Your task to perform on an android device: turn on location history Image 0: 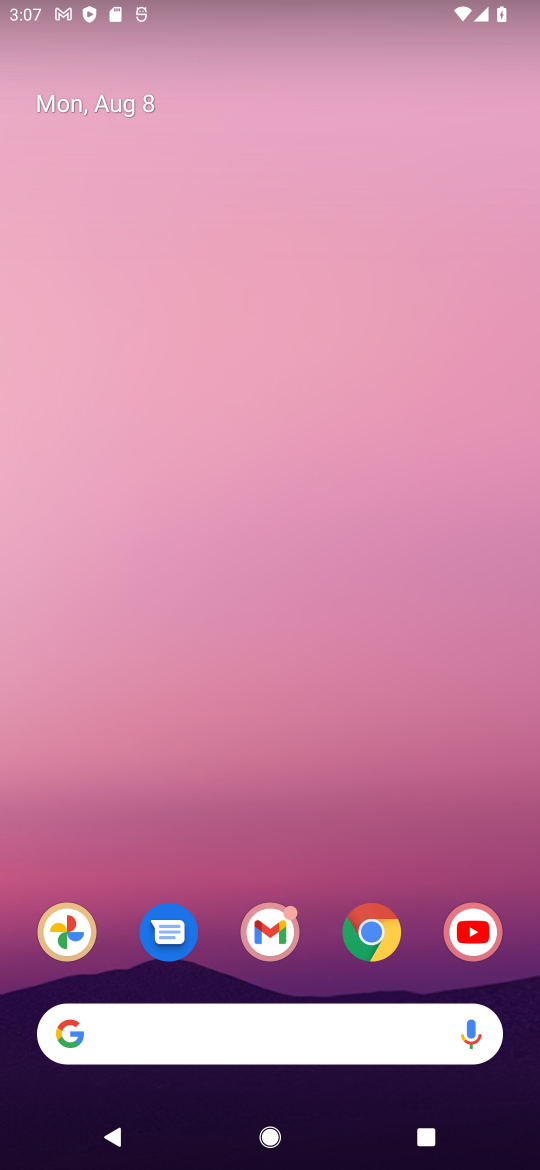
Step 0: drag from (205, 899) to (346, 350)
Your task to perform on an android device: turn on location history Image 1: 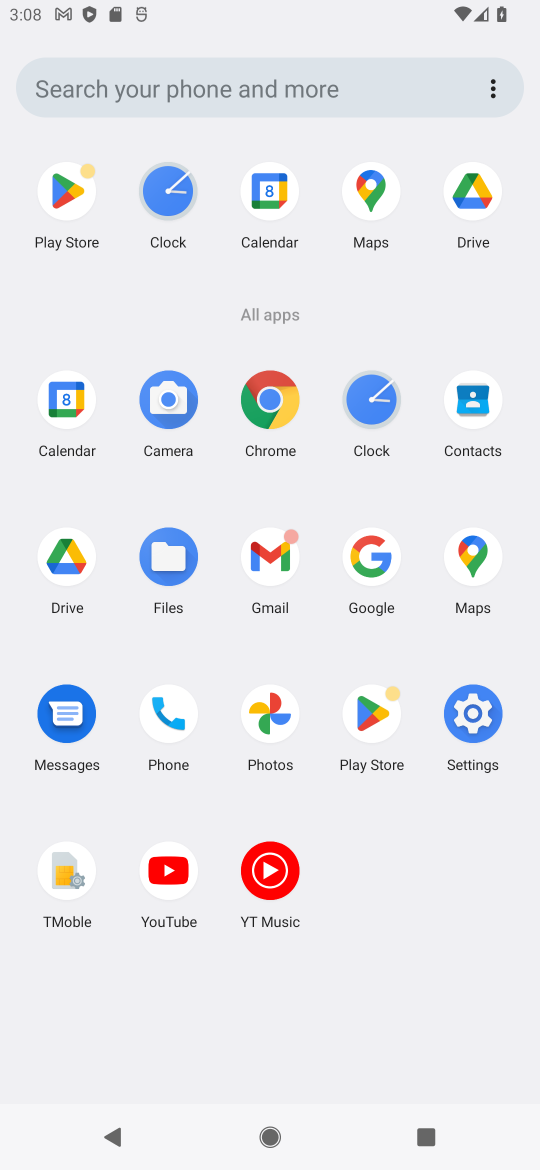
Step 1: click (372, 217)
Your task to perform on an android device: turn on location history Image 2: 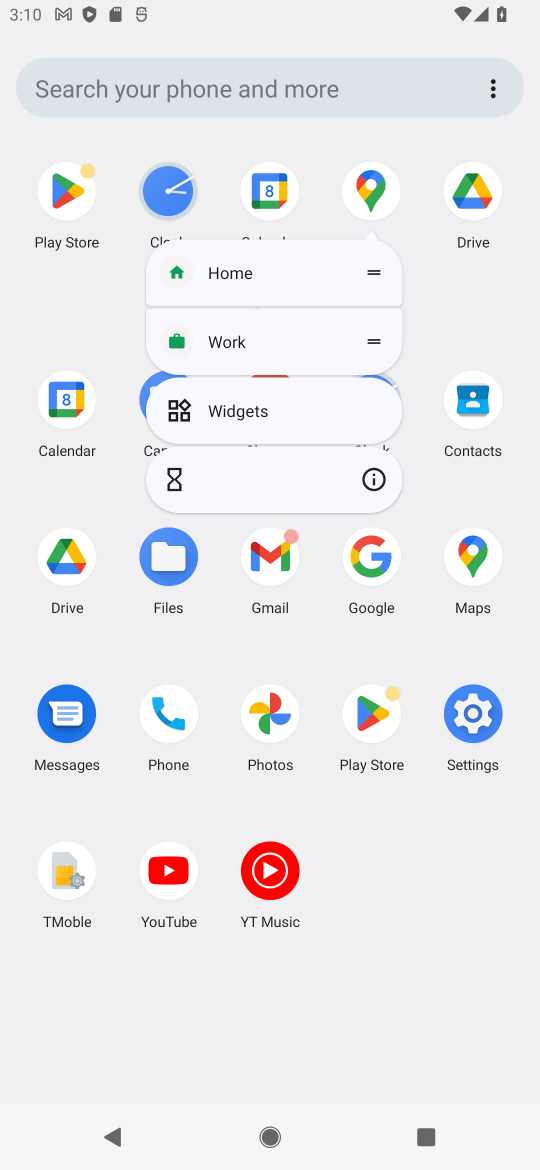
Step 2: click (472, 568)
Your task to perform on an android device: turn on location history Image 3: 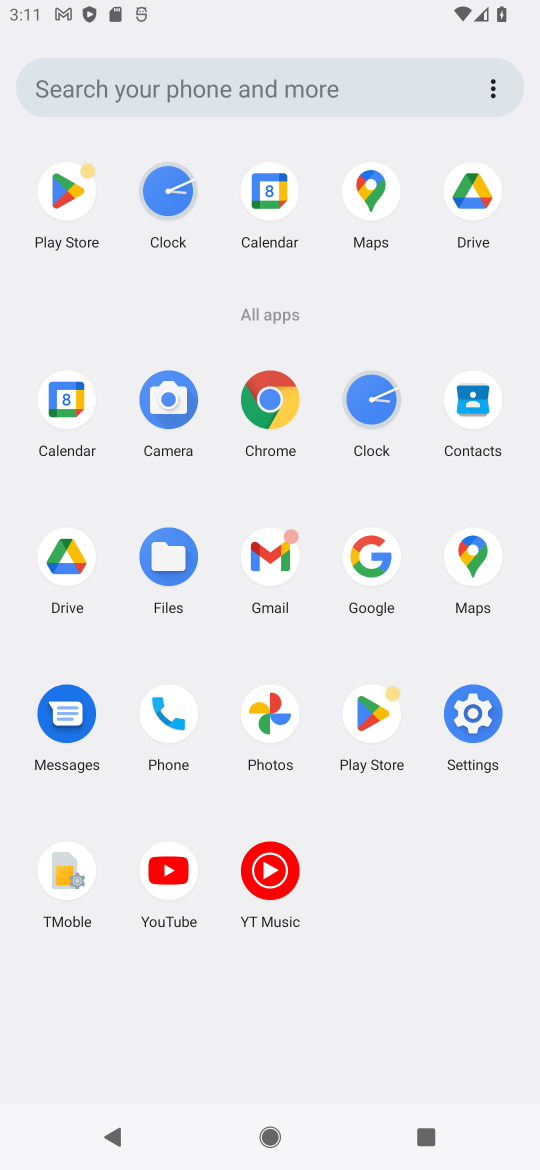
Step 3: click (453, 555)
Your task to perform on an android device: turn on location history Image 4: 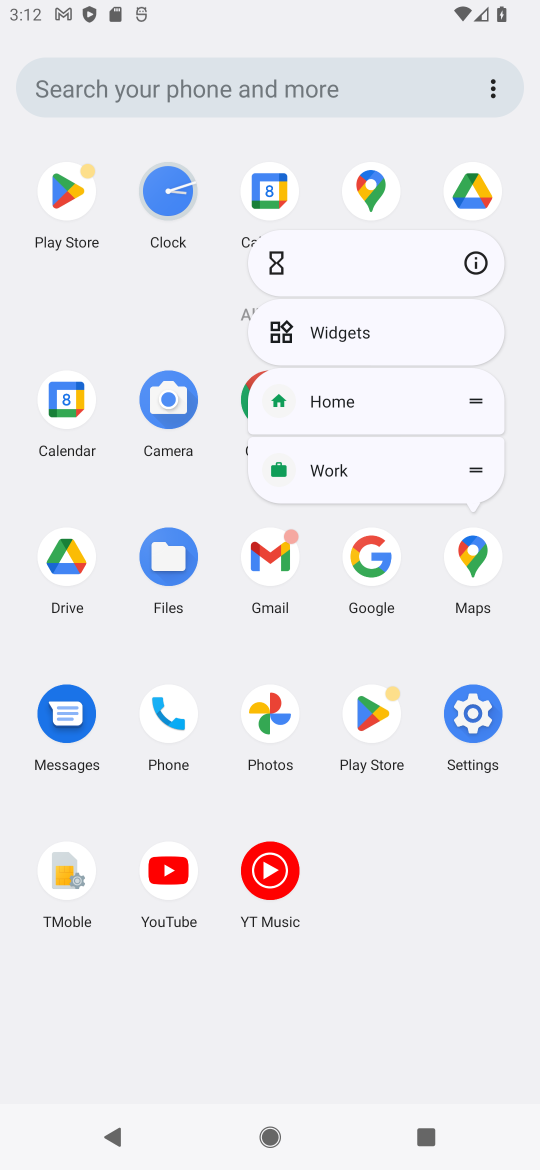
Step 4: click (476, 542)
Your task to perform on an android device: turn on location history Image 5: 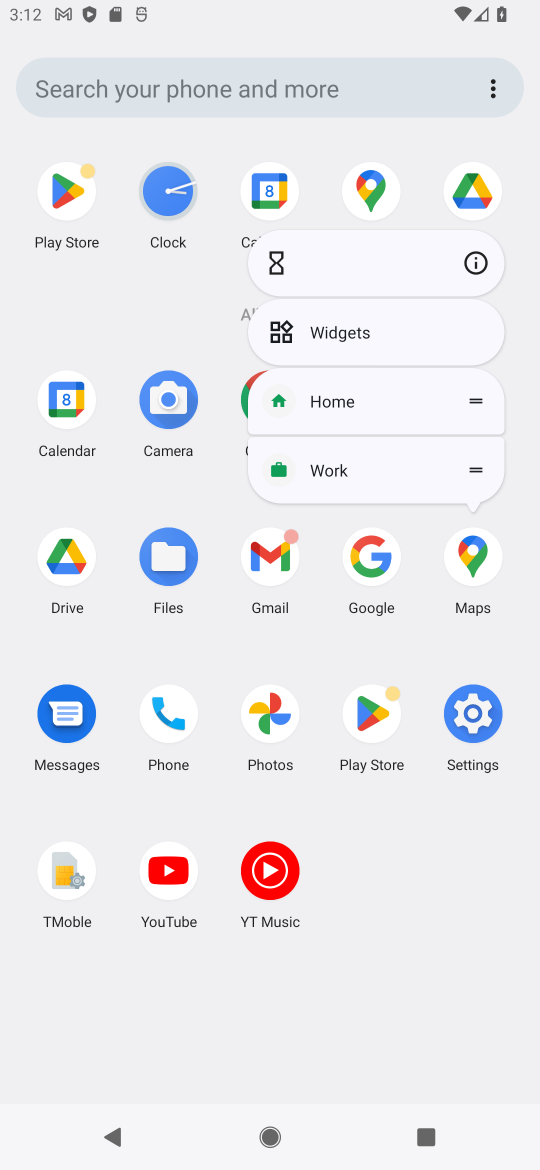
Step 5: click (474, 549)
Your task to perform on an android device: turn on location history Image 6: 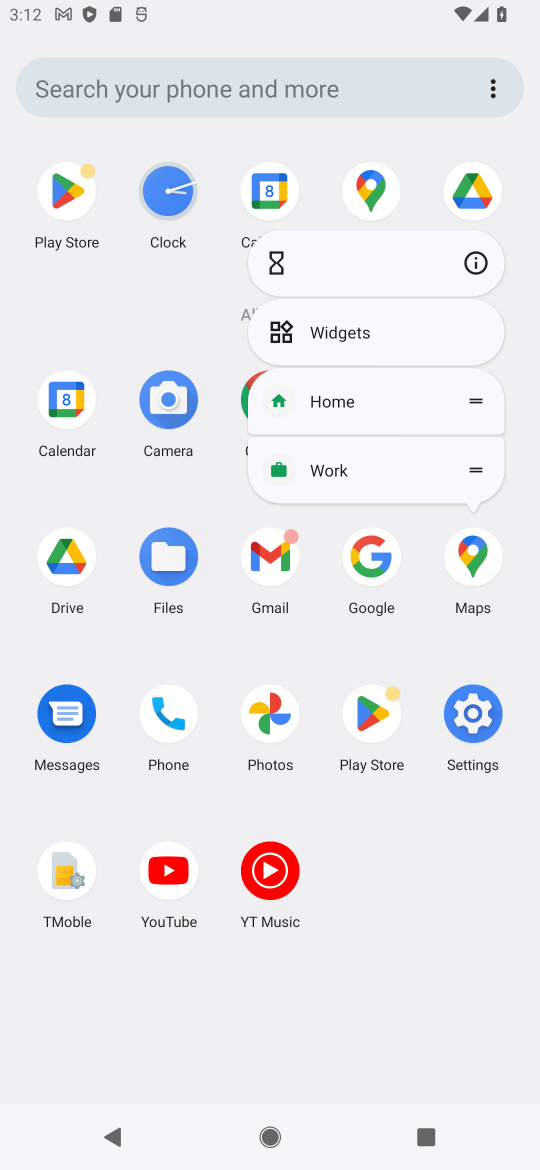
Step 6: click (474, 549)
Your task to perform on an android device: turn on location history Image 7: 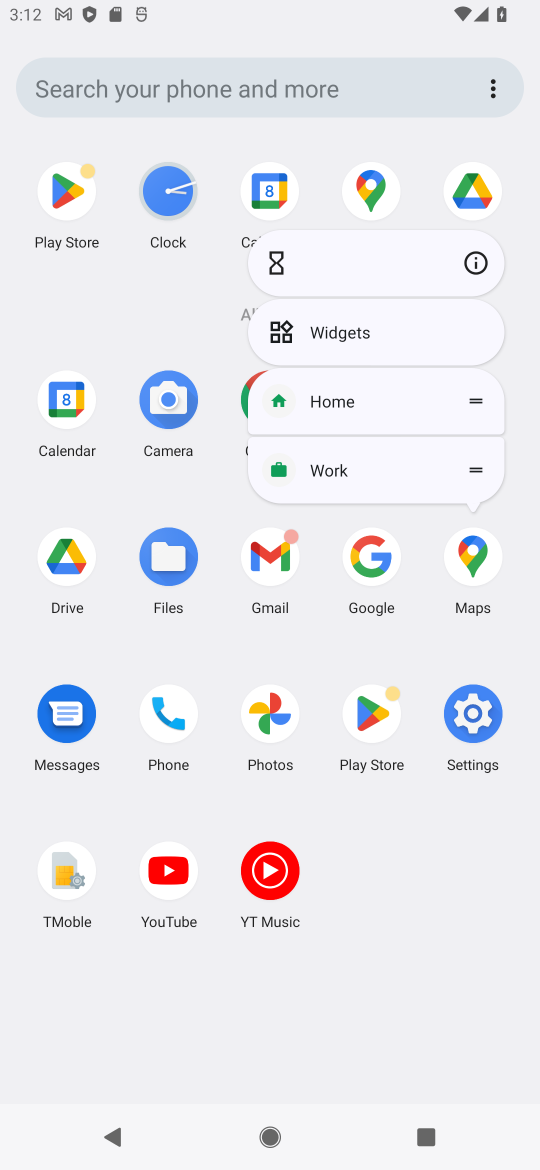
Step 7: click (474, 549)
Your task to perform on an android device: turn on location history Image 8: 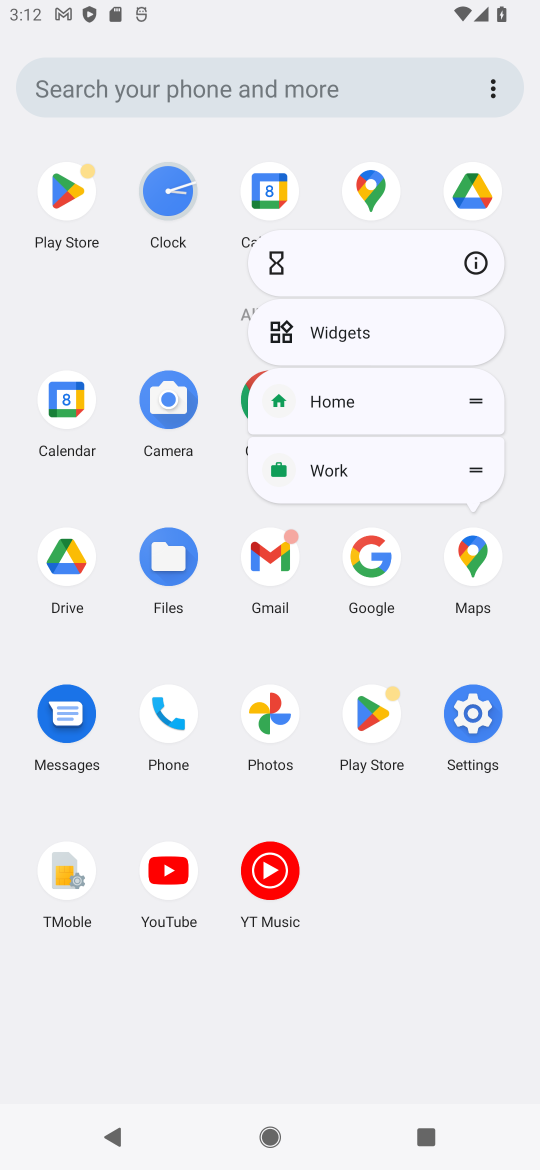
Step 8: click (474, 560)
Your task to perform on an android device: turn on location history Image 9: 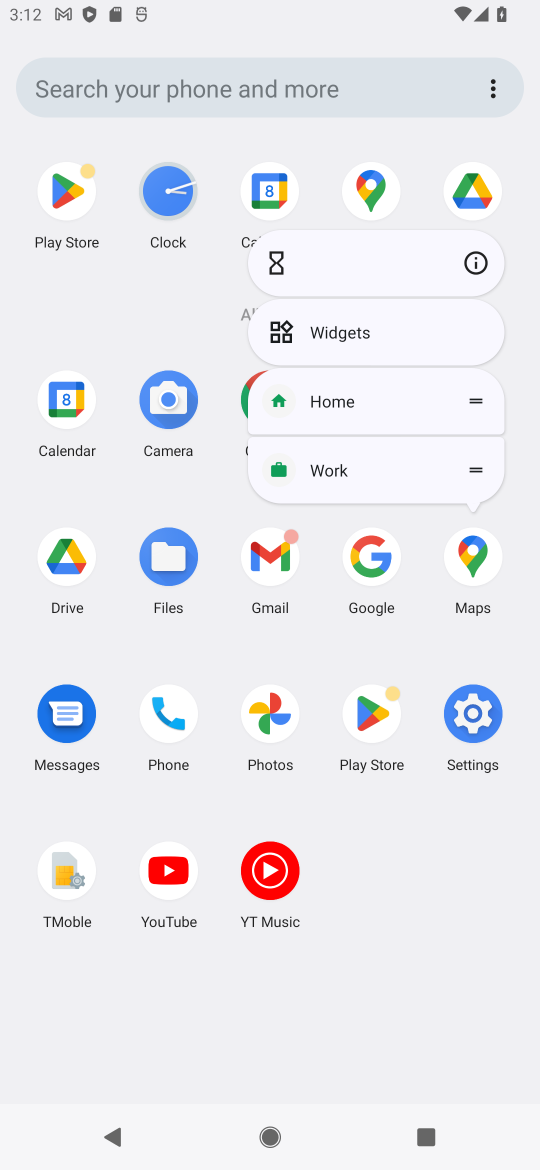
Step 9: click (474, 560)
Your task to perform on an android device: turn on location history Image 10: 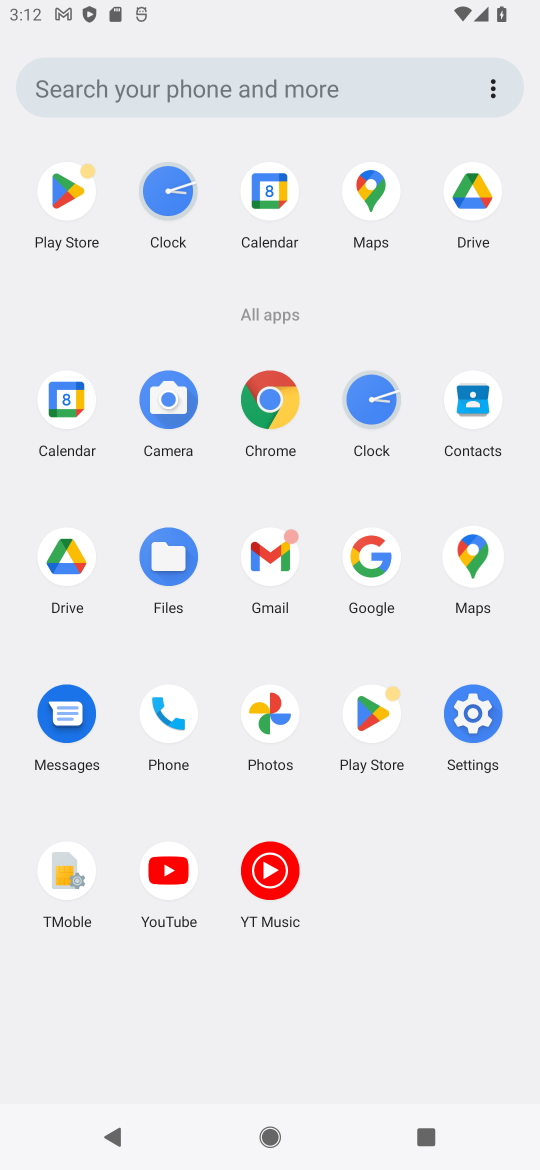
Step 10: click (474, 560)
Your task to perform on an android device: turn on location history Image 11: 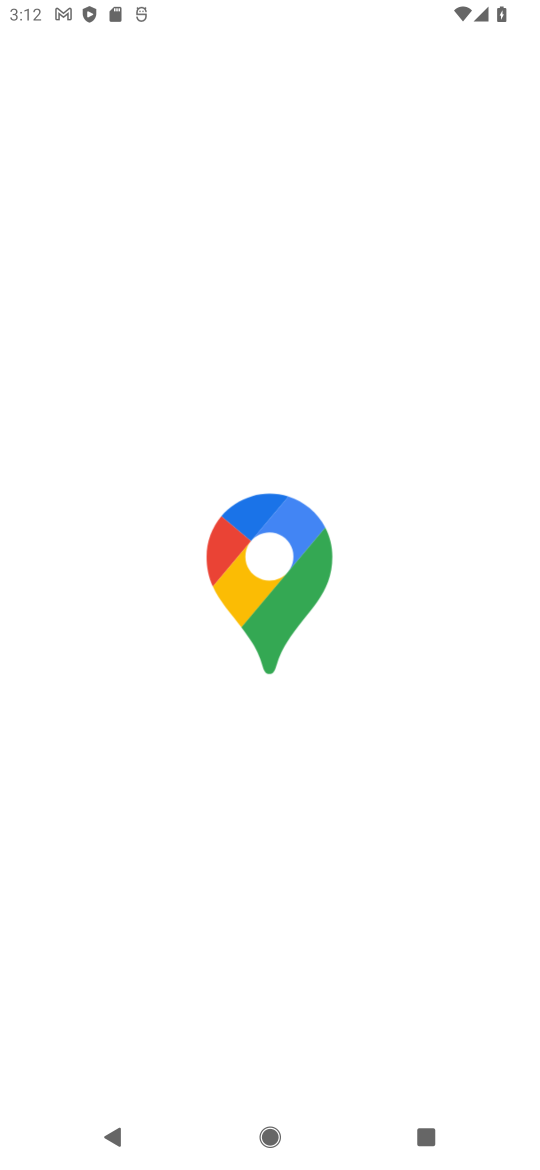
Step 11: click (474, 560)
Your task to perform on an android device: turn on location history Image 12: 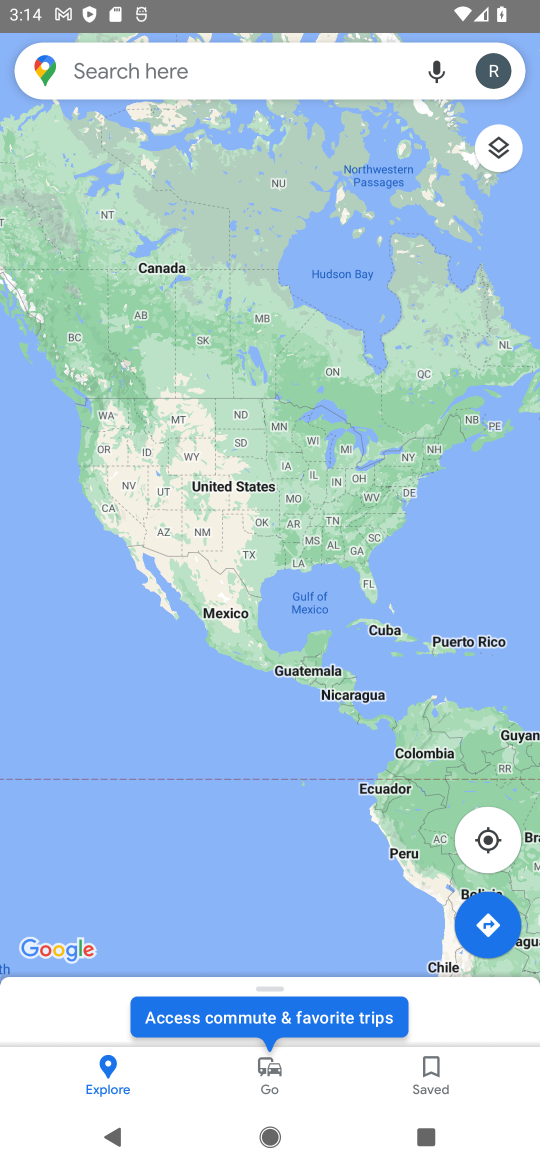
Step 12: click (46, 67)
Your task to perform on an android device: turn on location history Image 13: 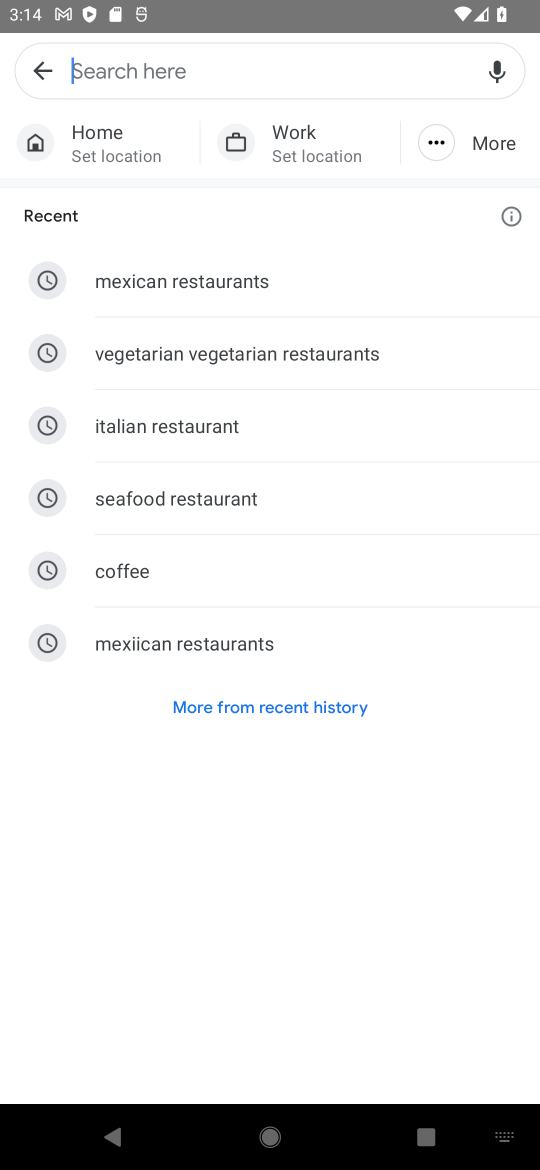
Step 13: task complete